Your task to perform on an android device: turn off location history Image 0: 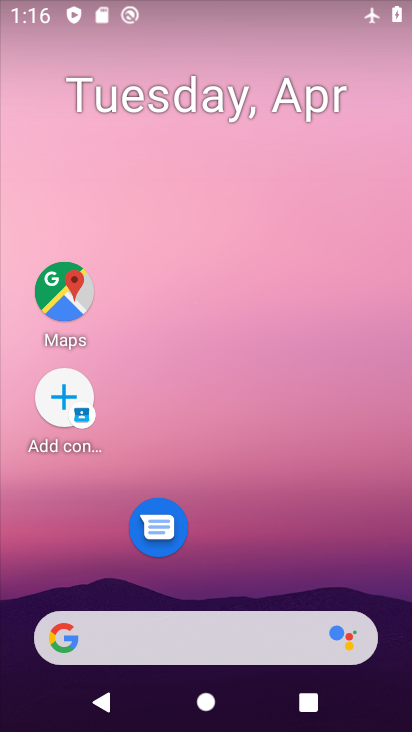
Step 0: drag from (260, 578) to (255, 26)
Your task to perform on an android device: turn off location history Image 1: 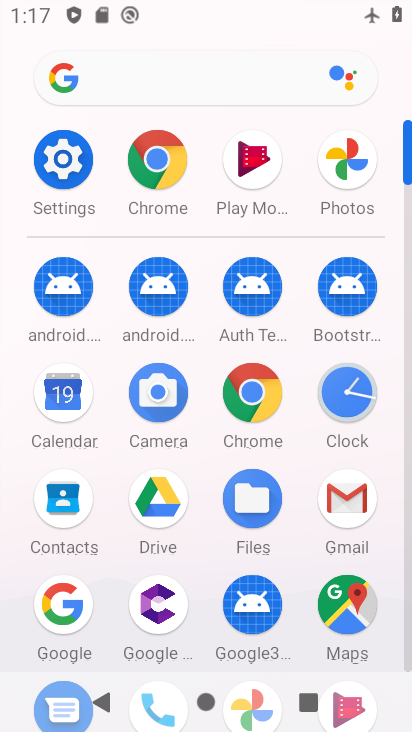
Step 1: click (63, 159)
Your task to perform on an android device: turn off location history Image 2: 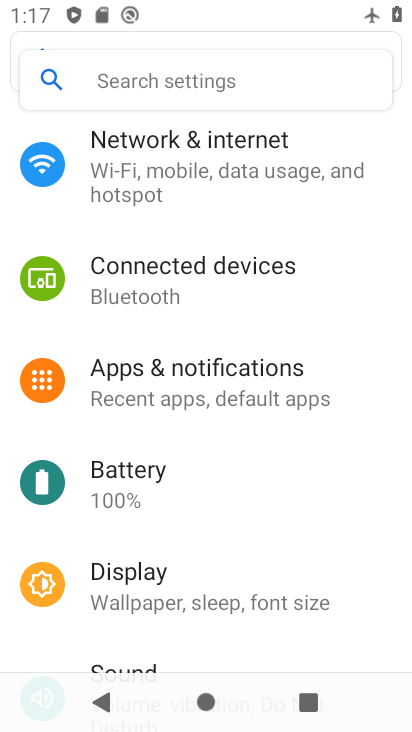
Step 2: drag from (215, 482) to (246, 370)
Your task to perform on an android device: turn off location history Image 3: 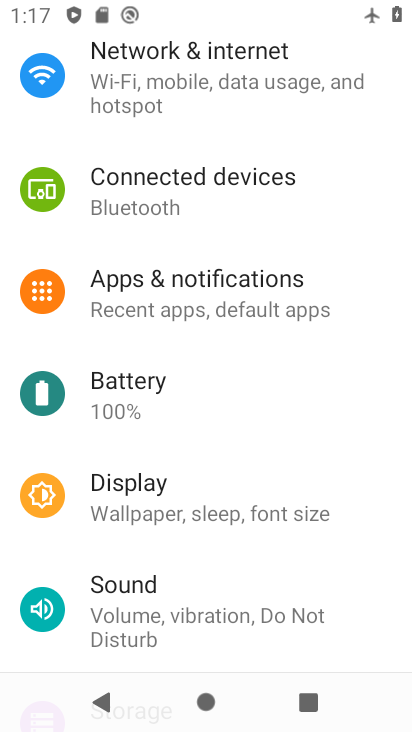
Step 3: drag from (212, 460) to (237, 373)
Your task to perform on an android device: turn off location history Image 4: 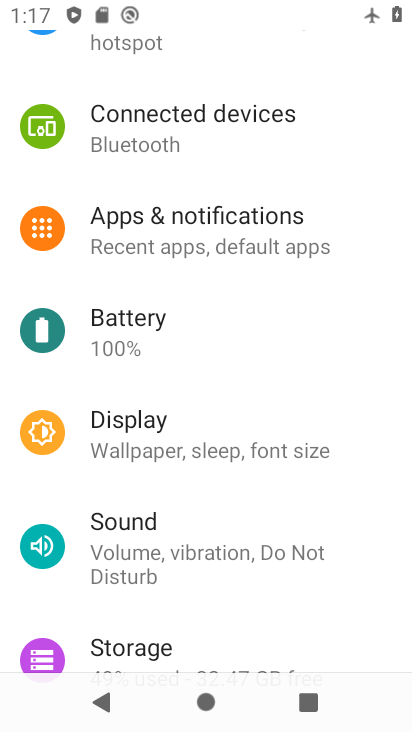
Step 4: drag from (203, 493) to (224, 398)
Your task to perform on an android device: turn off location history Image 5: 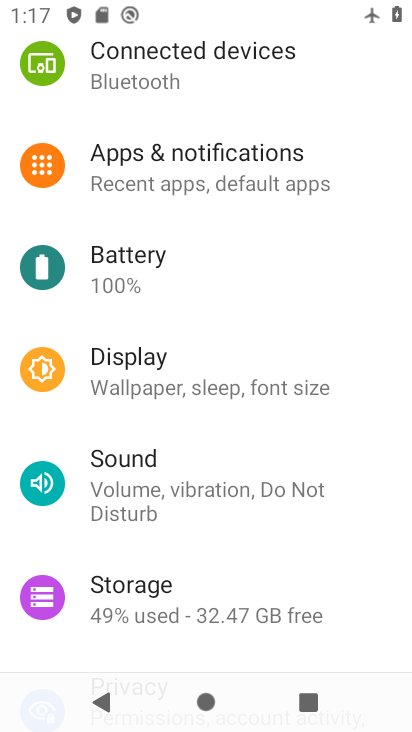
Step 5: drag from (205, 526) to (229, 416)
Your task to perform on an android device: turn off location history Image 6: 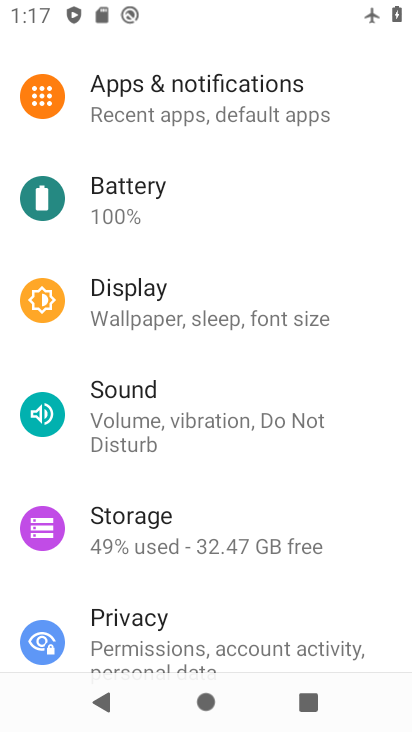
Step 6: drag from (203, 513) to (226, 419)
Your task to perform on an android device: turn off location history Image 7: 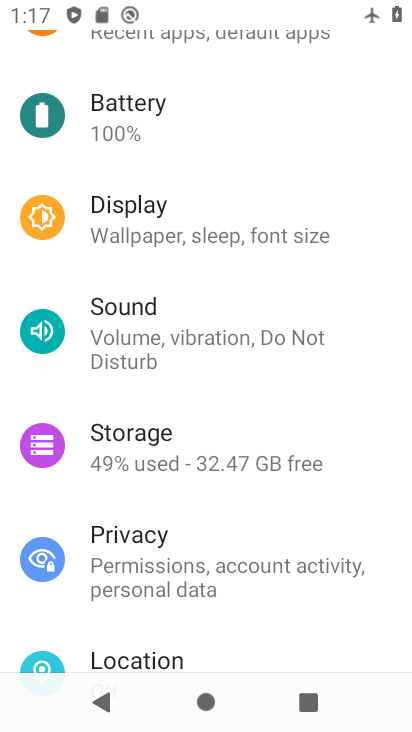
Step 7: drag from (212, 540) to (234, 449)
Your task to perform on an android device: turn off location history Image 8: 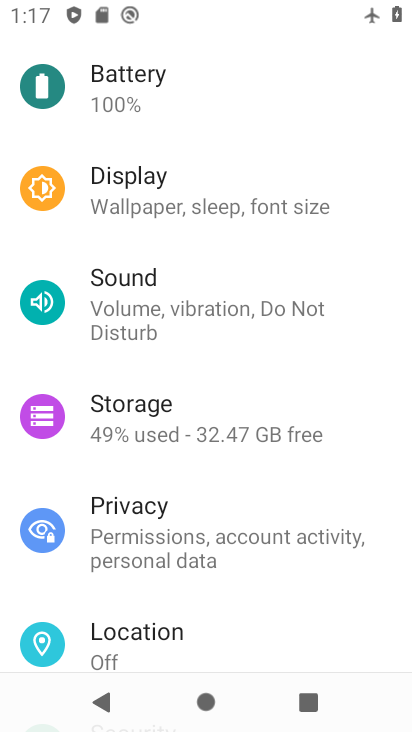
Step 8: drag from (228, 602) to (272, 447)
Your task to perform on an android device: turn off location history Image 9: 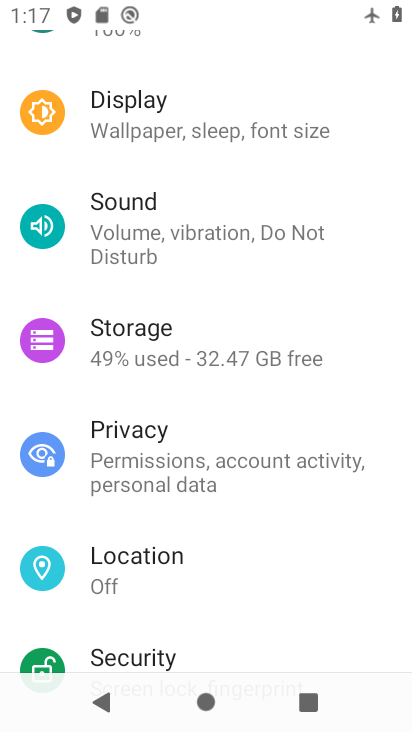
Step 9: click (161, 564)
Your task to perform on an android device: turn off location history Image 10: 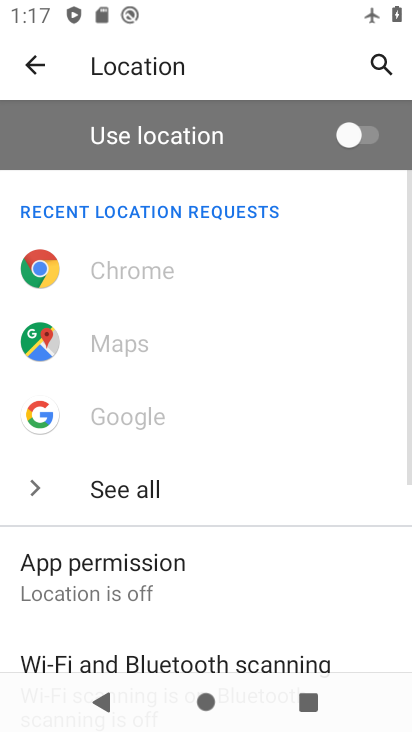
Step 10: drag from (232, 611) to (228, 466)
Your task to perform on an android device: turn off location history Image 11: 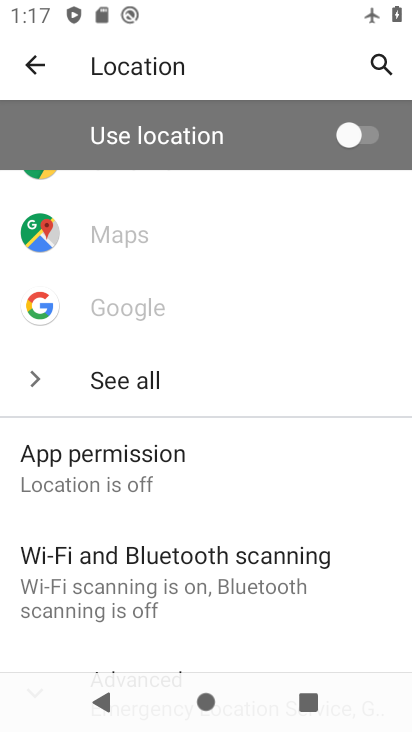
Step 11: drag from (210, 611) to (241, 431)
Your task to perform on an android device: turn off location history Image 12: 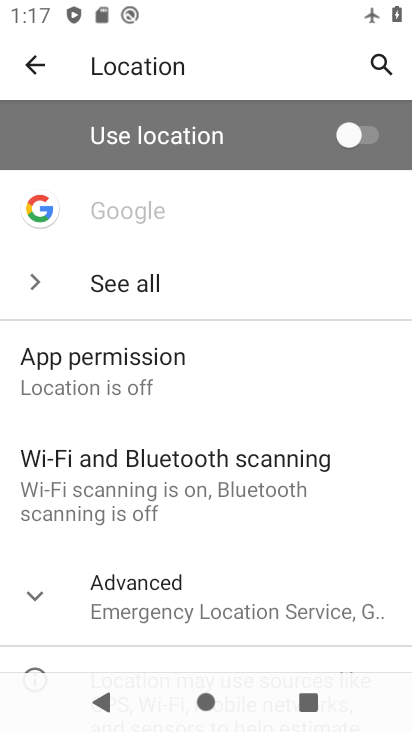
Step 12: click (236, 621)
Your task to perform on an android device: turn off location history Image 13: 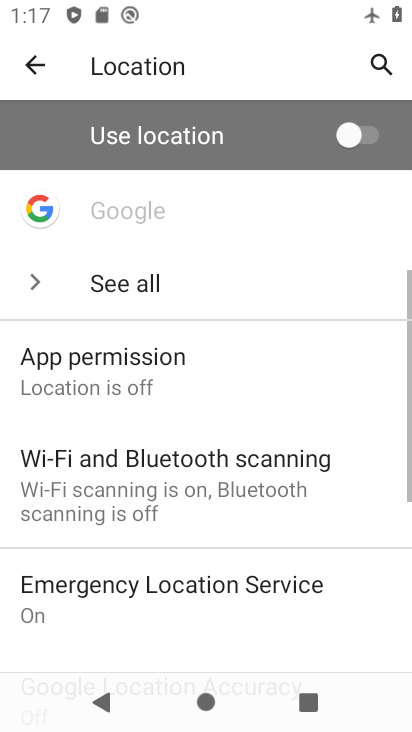
Step 13: drag from (236, 621) to (237, 455)
Your task to perform on an android device: turn off location history Image 14: 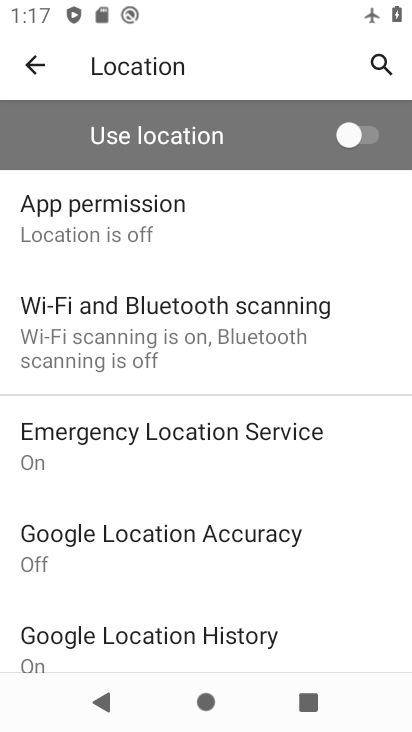
Step 14: drag from (244, 581) to (260, 506)
Your task to perform on an android device: turn off location history Image 15: 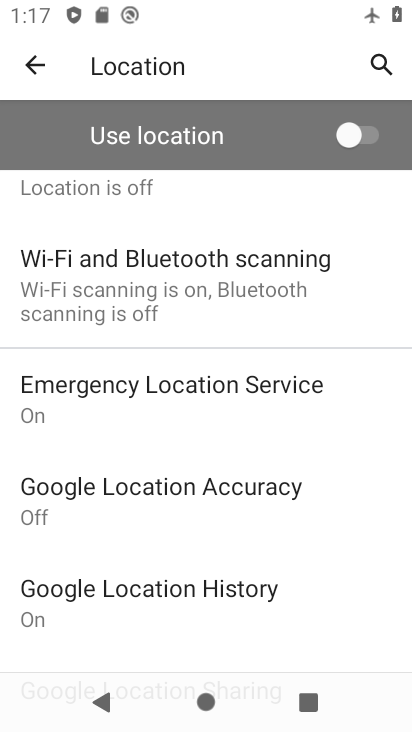
Step 15: click (239, 589)
Your task to perform on an android device: turn off location history Image 16: 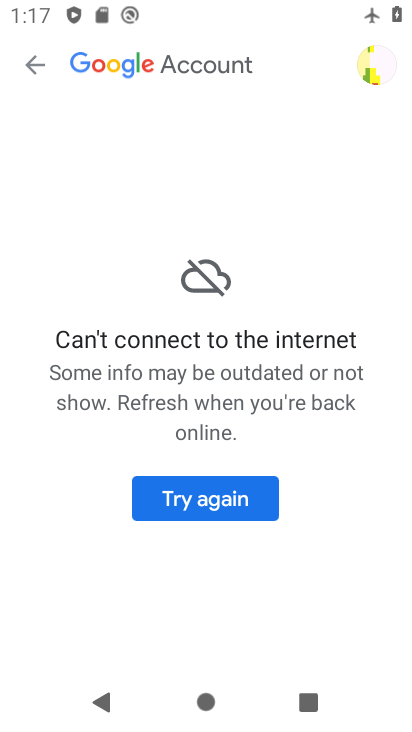
Step 16: click (213, 525)
Your task to perform on an android device: turn off location history Image 17: 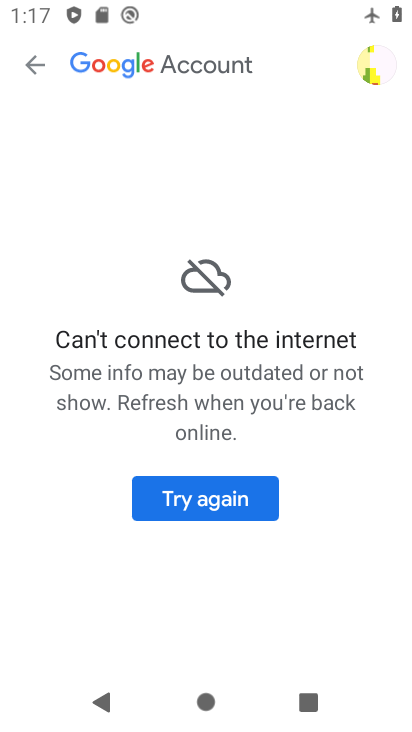
Step 17: click (204, 500)
Your task to perform on an android device: turn off location history Image 18: 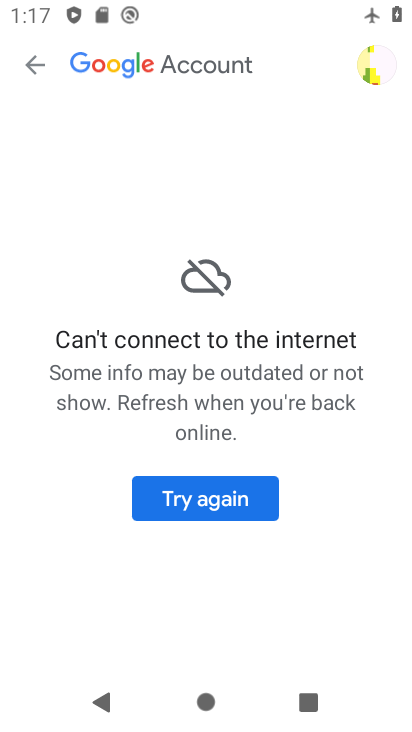
Step 18: task complete